Your task to perform on an android device: Go to battery settings Image 0: 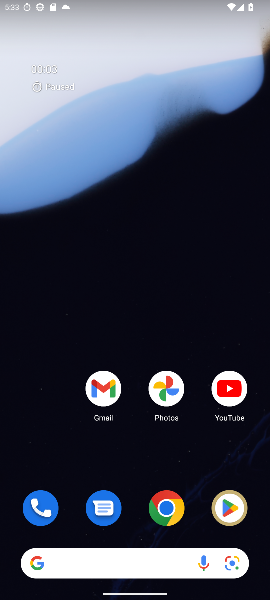
Step 0: press home button
Your task to perform on an android device: Go to battery settings Image 1: 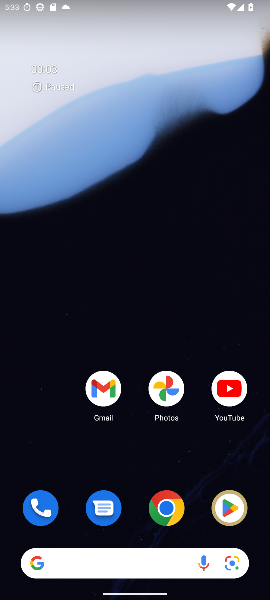
Step 1: drag from (56, 454) to (18, 44)
Your task to perform on an android device: Go to battery settings Image 2: 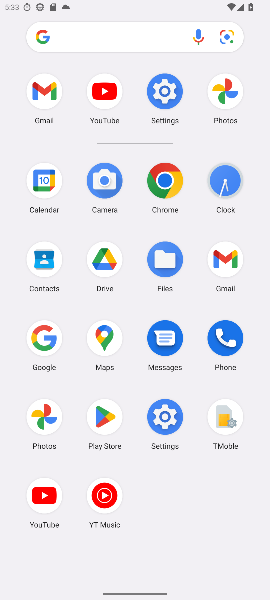
Step 2: click (158, 85)
Your task to perform on an android device: Go to battery settings Image 3: 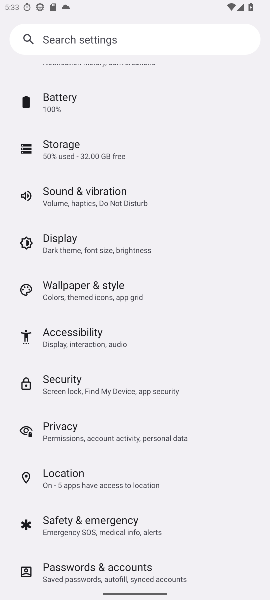
Step 3: click (59, 103)
Your task to perform on an android device: Go to battery settings Image 4: 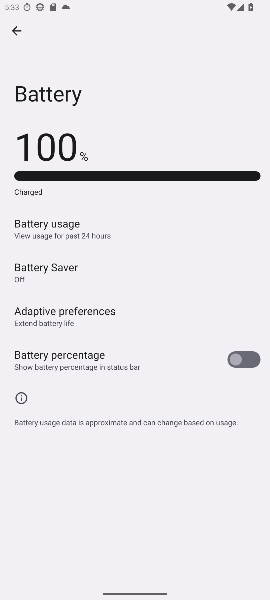
Step 4: task complete